Your task to perform on an android device: uninstall "NewsBreak: Local News & Alerts" Image 0: 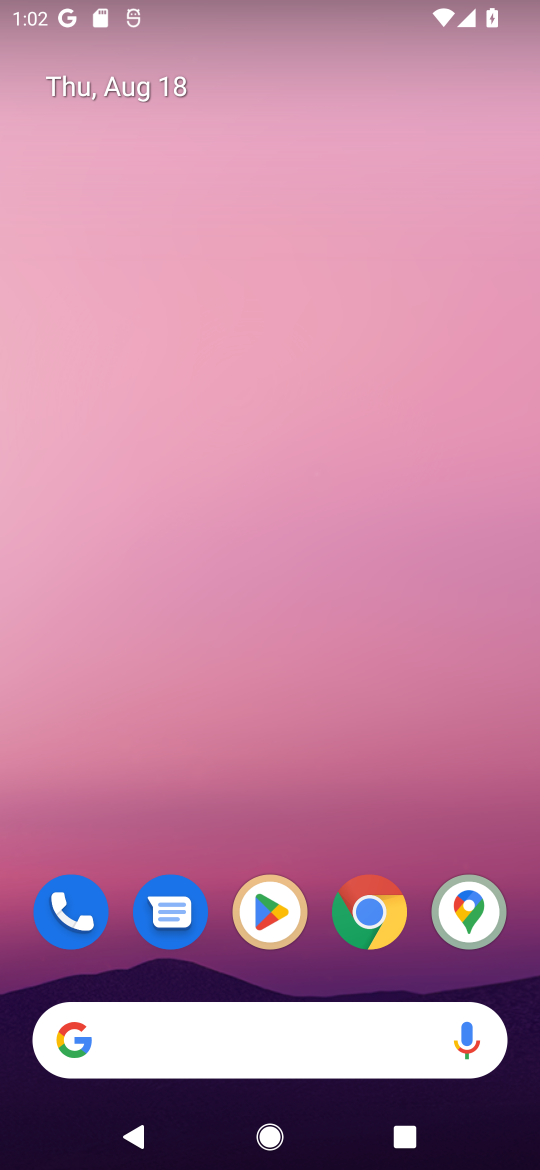
Step 0: click (240, 913)
Your task to perform on an android device: uninstall "NewsBreak: Local News & Alerts" Image 1: 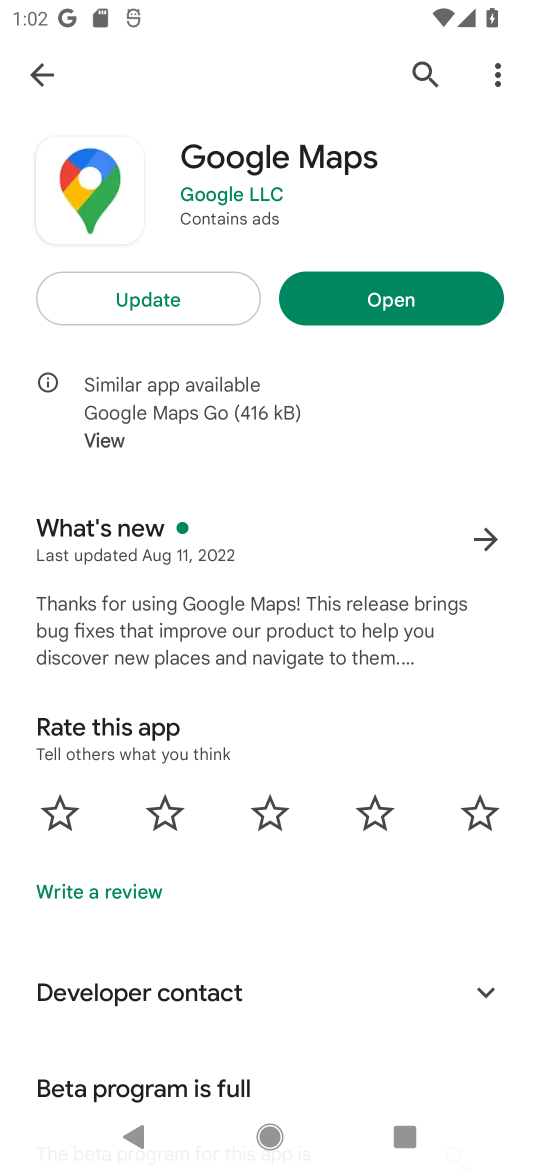
Step 1: click (424, 63)
Your task to perform on an android device: uninstall "NewsBreak: Local News & Alerts" Image 2: 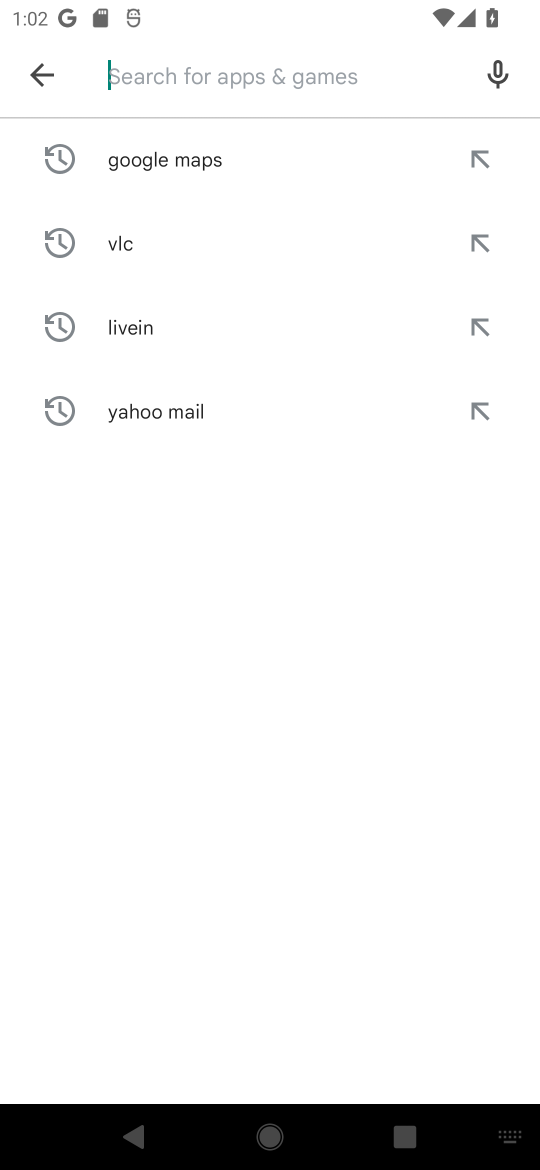
Step 2: click (204, 64)
Your task to perform on an android device: uninstall "NewsBreak: Local News & Alerts" Image 3: 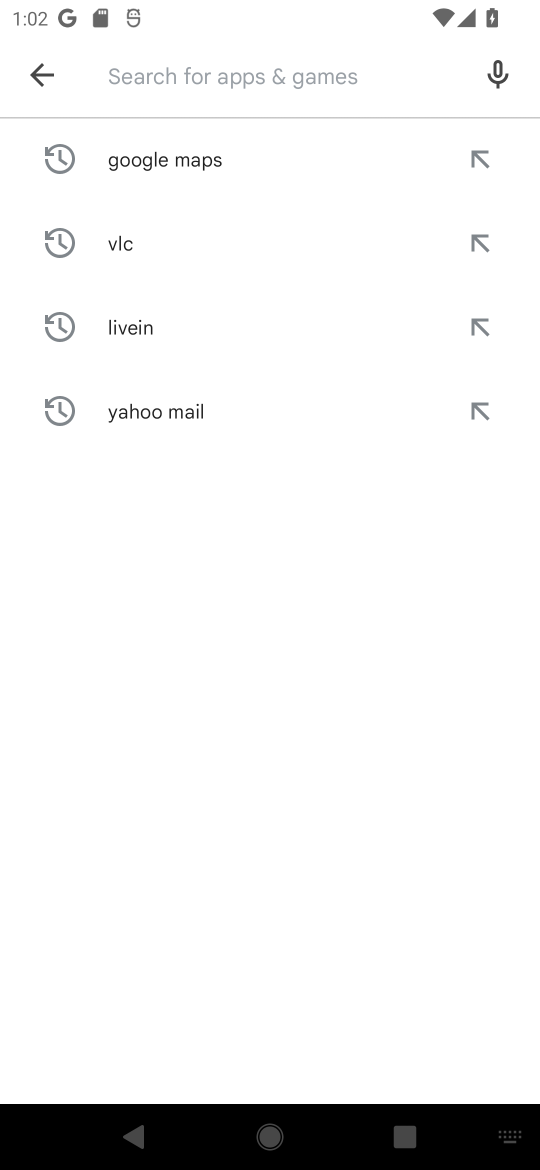
Step 3: type "NewsBreak"
Your task to perform on an android device: uninstall "NewsBreak: Local News & Alerts" Image 4: 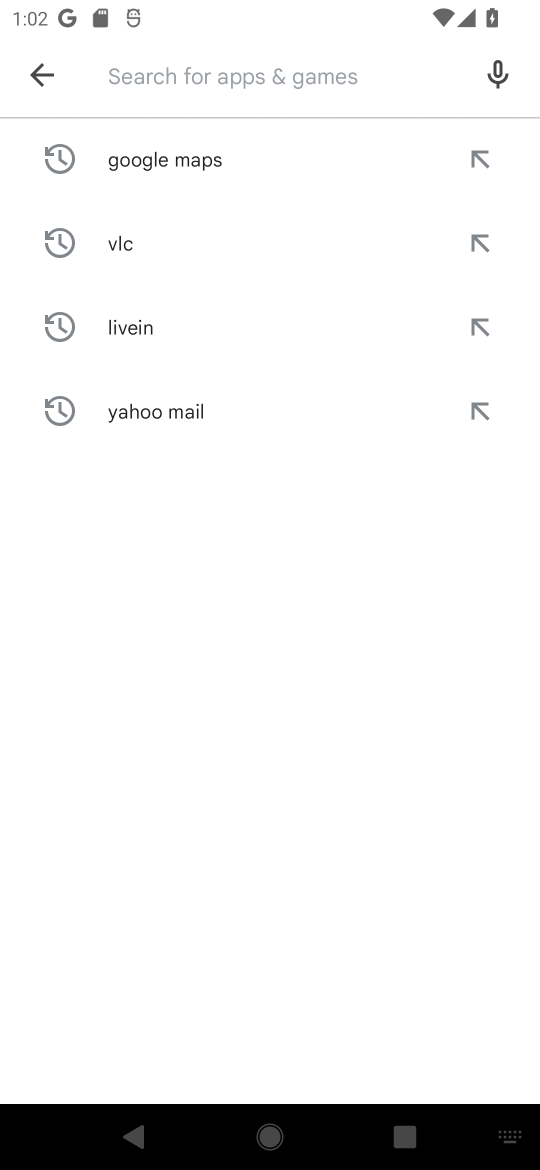
Step 4: click (414, 724)
Your task to perform on an android device: uninstall "NewsBreak: Local News & Alerts" Image 5: 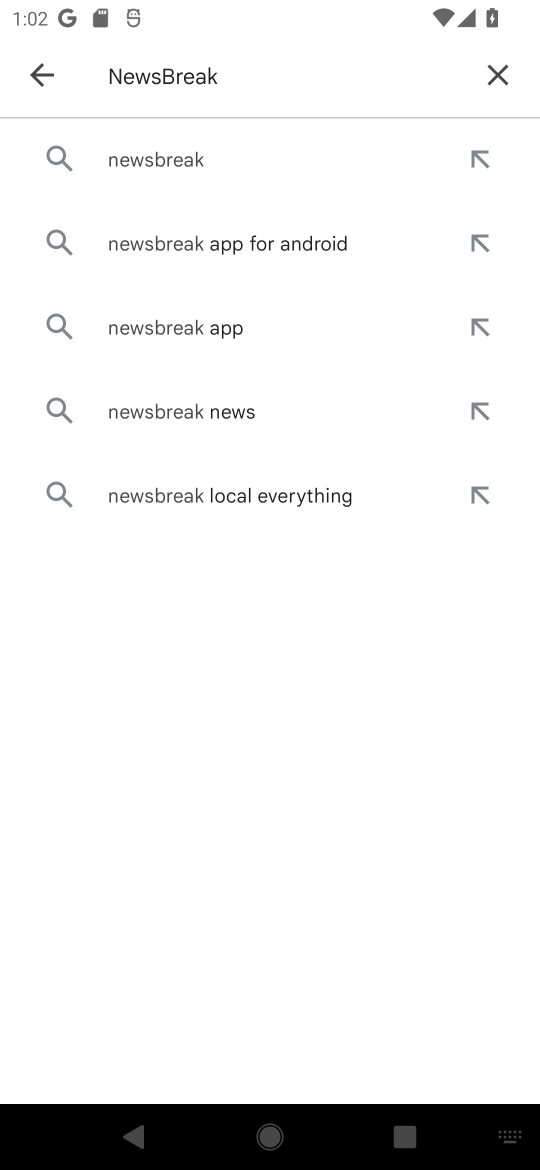
Step 5: click (192, 160)
Your task to perform on an android device: uninstall "NewsBreak: Local News & Alerts" Image 6: 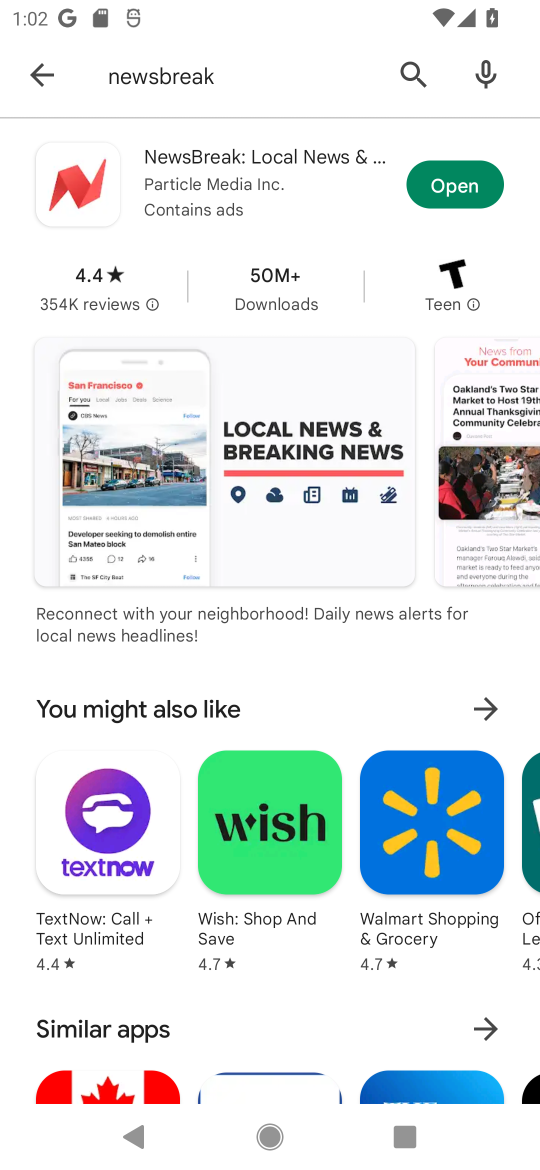
Step 6: click (236, 155)
Your task to perform on an android device: uninstall "NewsBreak: Local News & Alerts" Image 7: 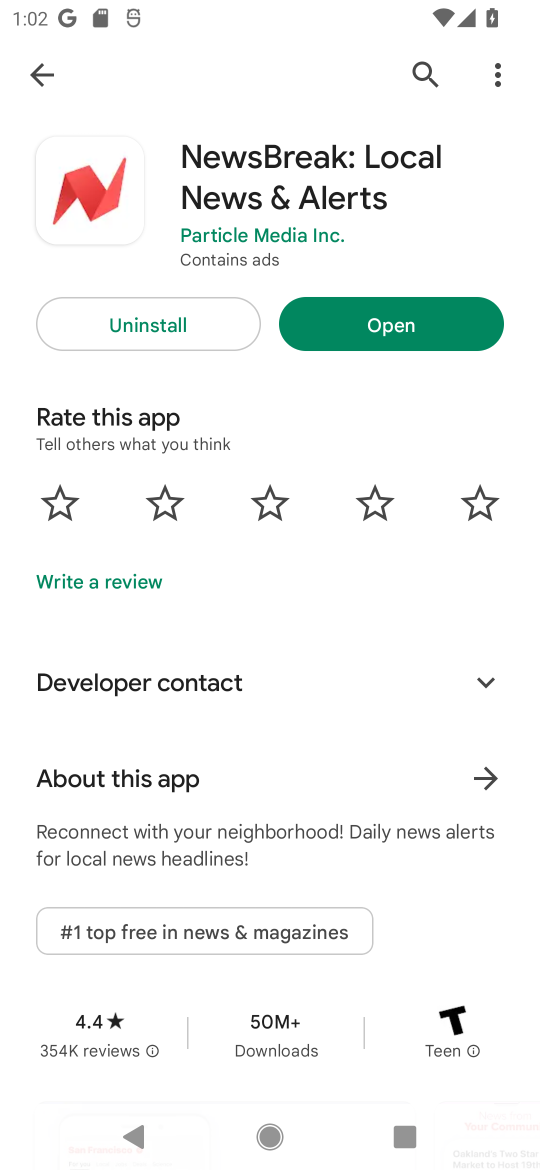
Step 7: click (173, 313)
Your task to perform on an android device: uninstall "NewsBreak: Local News & Alerts" Image 8: 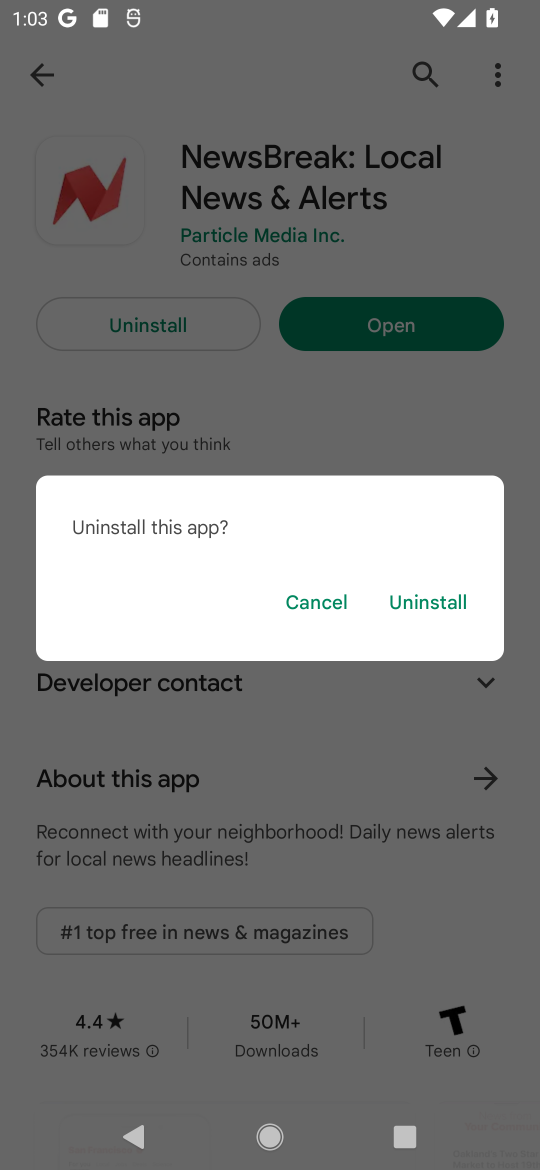
Step 8: click (434, 608)
Your task to perform on an android device: uninstall "NewsBreak: Local News & Alerts" Image 9: 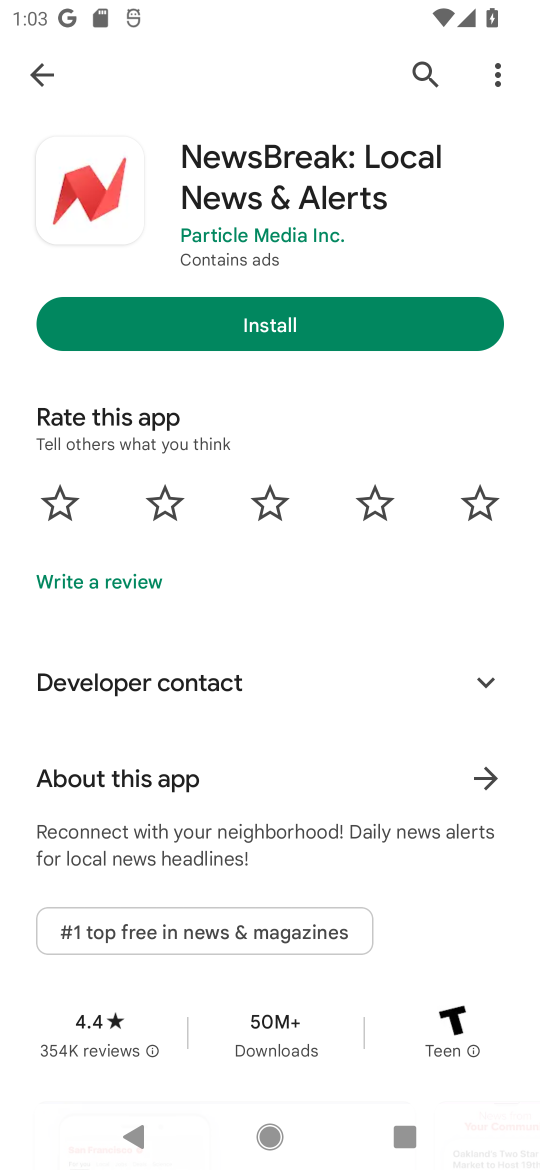
Step 9: task complete